Your task to perform on an android device: Is it going to rain this weekend? Image 0: 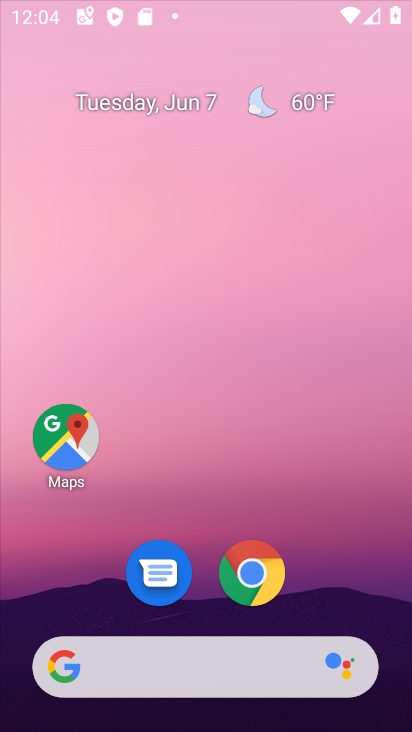
Step 0: drag from (271, 421) to (390, 376)
Your task to perform on an android device: Is it going to rain this weekend? Image 1: 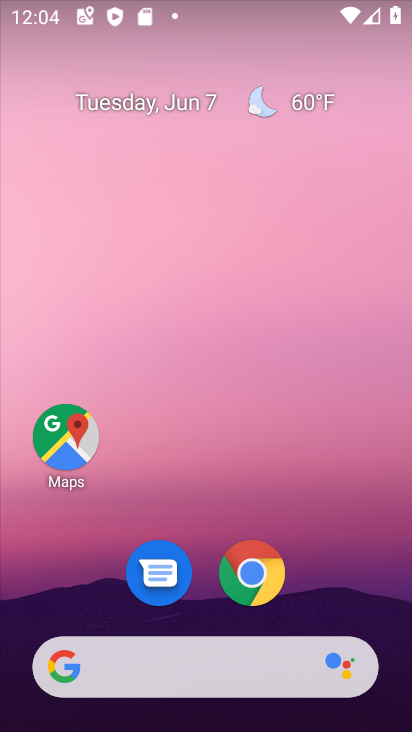
Step 1: click (234, 577)
Your task to perform on an android device: Is it going to rain this weekend? Image 2: 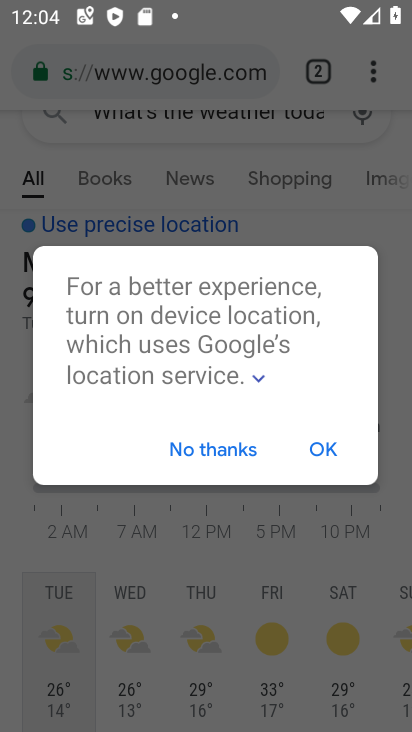
Step 2: click (213, 74)
Your task to perform on an android device: Is it going to rain this weekend? Image 3: 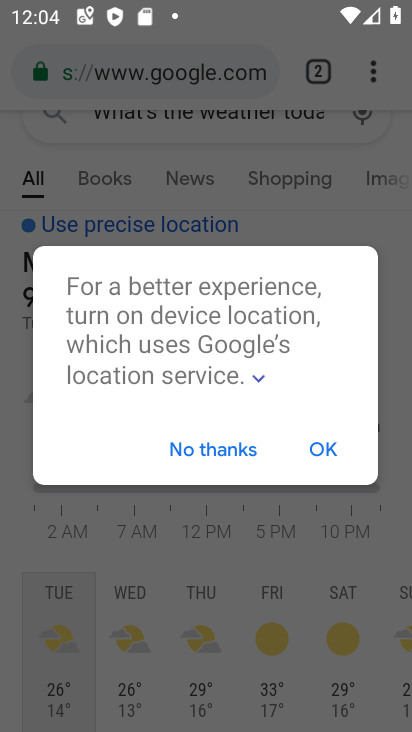
Step 3: click (323, 450)
Your task to perform on an android device: Is it going to rain this weekend? Image 4: 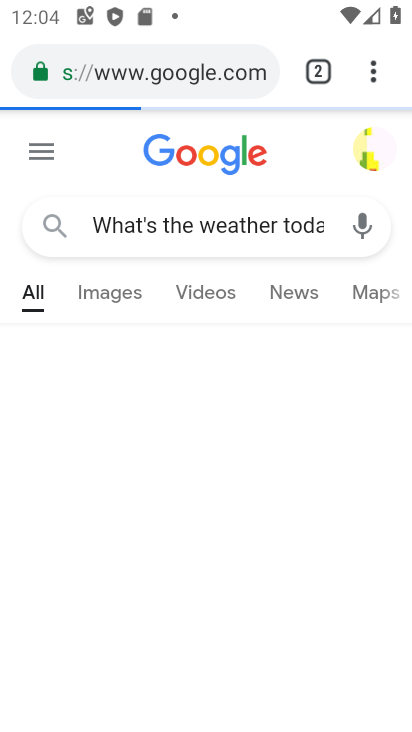
Step 4: click (207, 77)
Your task to perform on an android device: Is it going to rain this weekend? Image 5: 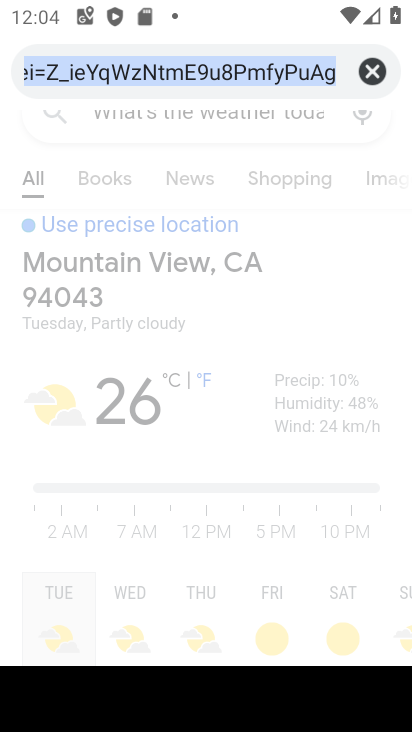
Step 5: type "Is it going to rain this weekend?"
Your task to perform on an android device: Is it going to rain this weekend? Image 6: 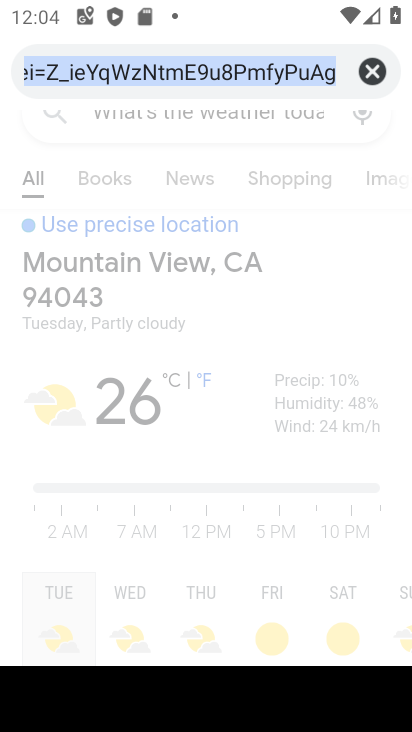
Step 6: click (331, 135)
Your task to perform on an android device: Is it going to rain this weekend? Image 7: 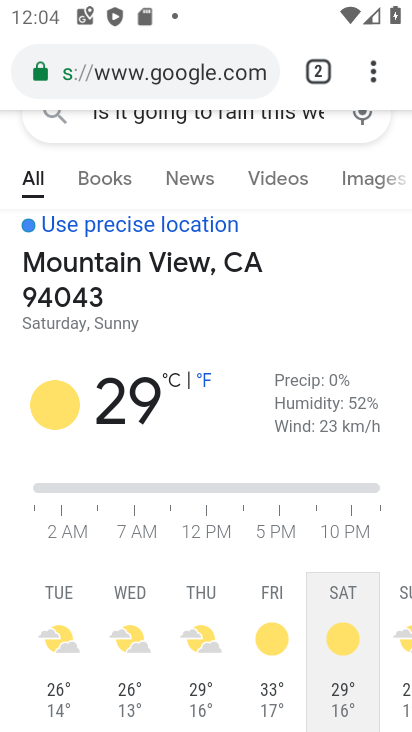
Step 7: task complete